Your task to perform on an android device: What's the weather? Image 0: 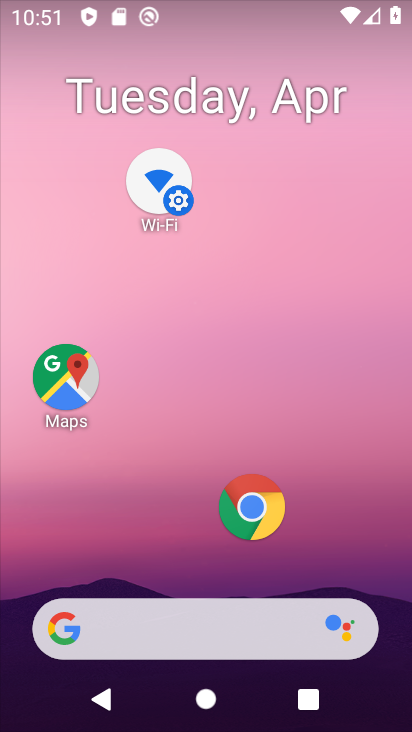
Step 0: click (190, 615)
Your task to perform on an android device: What's the weather? Image 1: 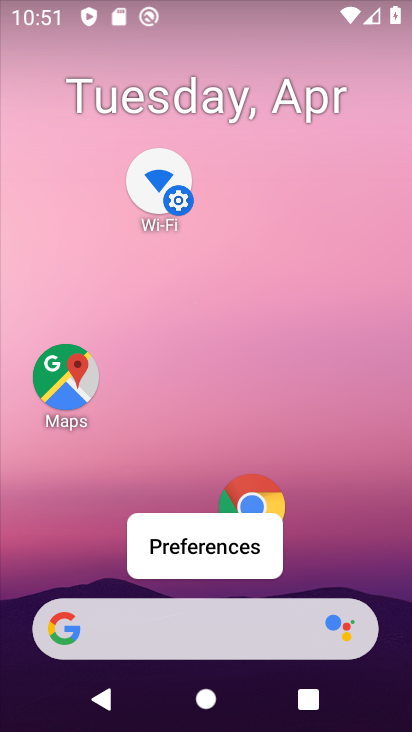
Step 1: click (209, 634)
Your task to perform on an android device: What's the weather? Image 2: 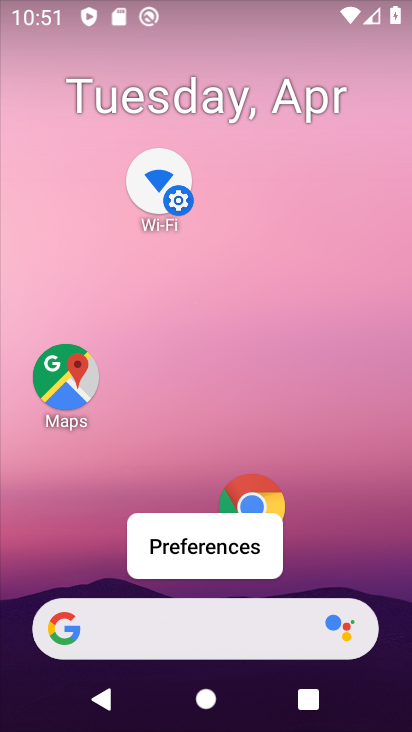
Step 2: click (219, 622)
Your task to perform on an android device: What's the weather? Image 3: 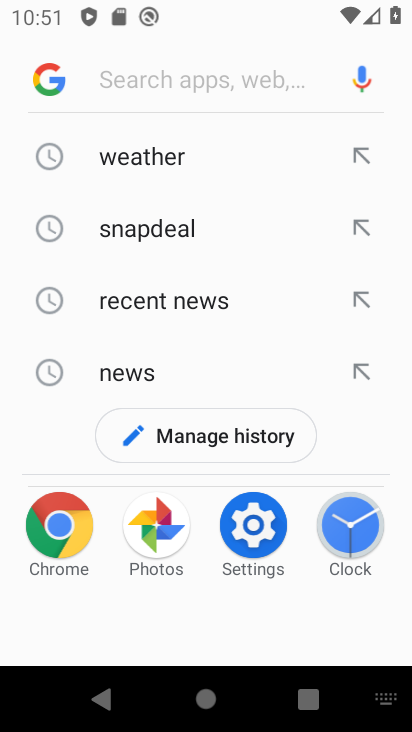
Step 3: click (144, 633)
Your task to perform on an android device: What's the weather? Image 4: 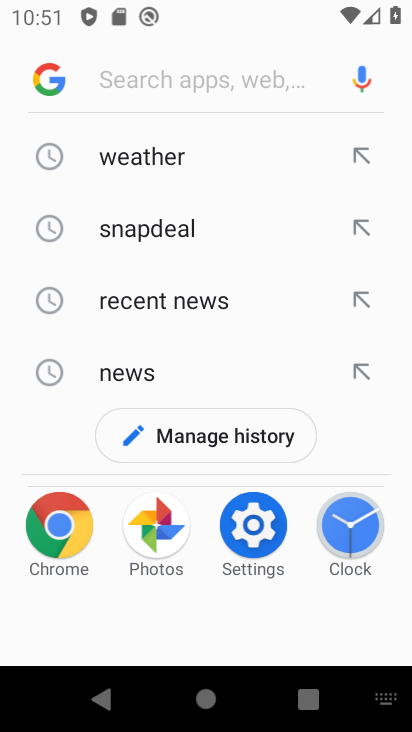
Step 4: click (114, 163)
Your task to perform on an android device: What's the weather? Image 5: 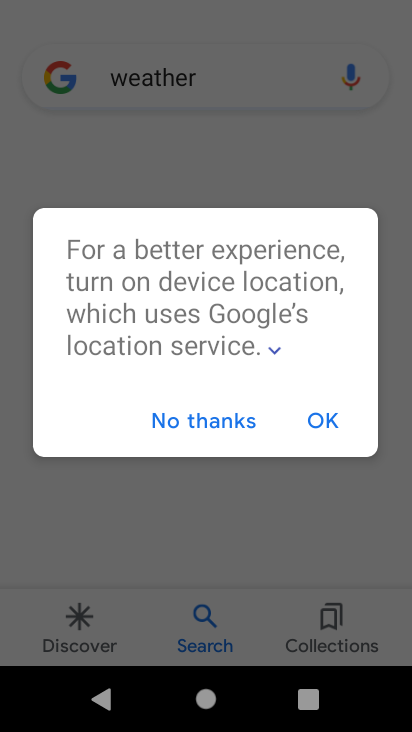
Step 5: click (324, 422)
Your task to perform on an android device: What's the weather? Image 6: 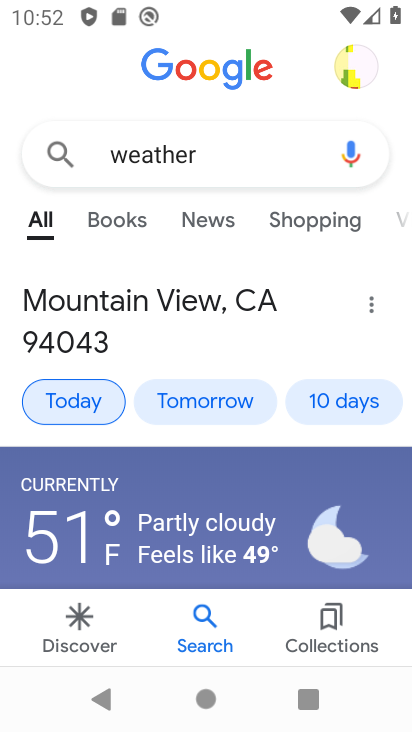
Step 6: task complete